Your task to perform on an android device: open a bookmark in the chrome app Image 0: 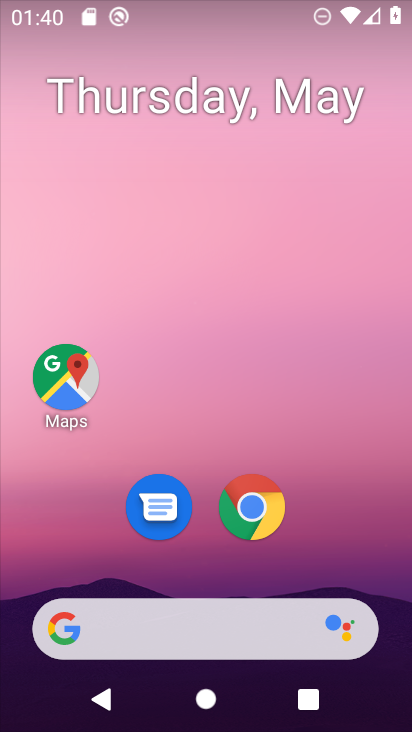
Step 0: click (248, 514)
Your task to perform on an android device: open a bookmark in the chrome app Image 1: 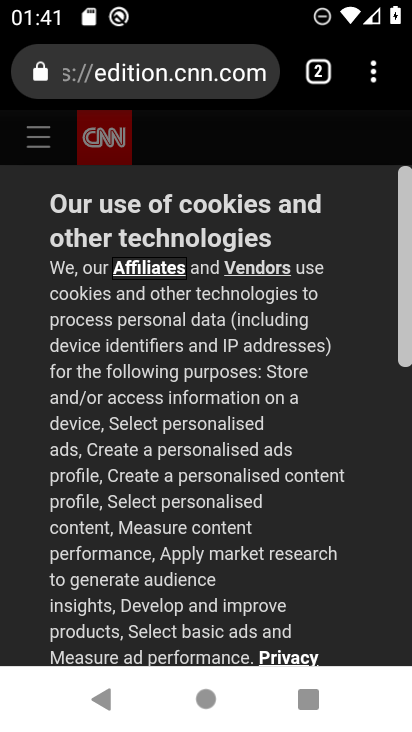
Step 1: click (389, 69)
Your task to perform on an android device: open a bookmark in the chrome app Image 2: 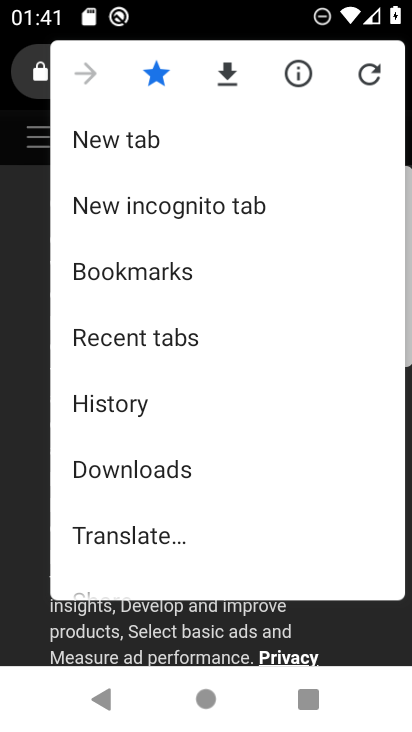
Step 2: drag from (294, 522) to (293, 475)
Your task to perform on an android device: open a bookmark in the chrome app Image 3: 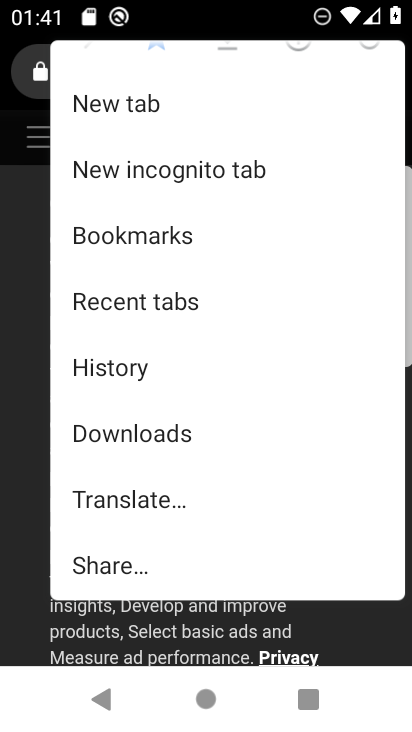
Step 3: click (192, 241)
Your task to perform on an android device: open a bookmark in the chrome app Image 4: 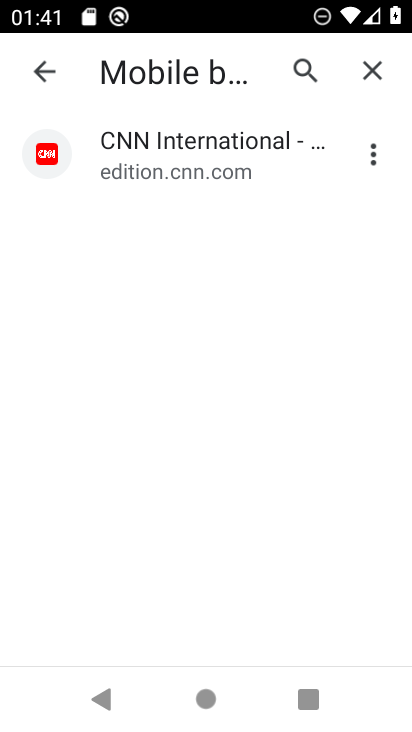
Step 4: click (173, 127)
Your task to perform on an android device: open a bookmark in the chrome app Image 5: 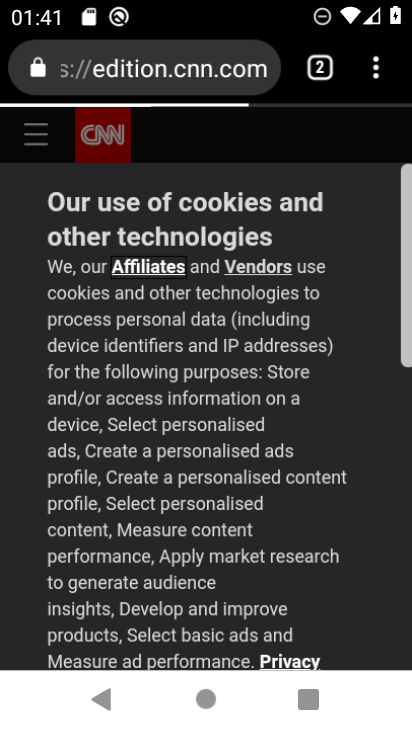
Step 5: task complete